Your task to perform on an android device: Open privacy settings Image 0: 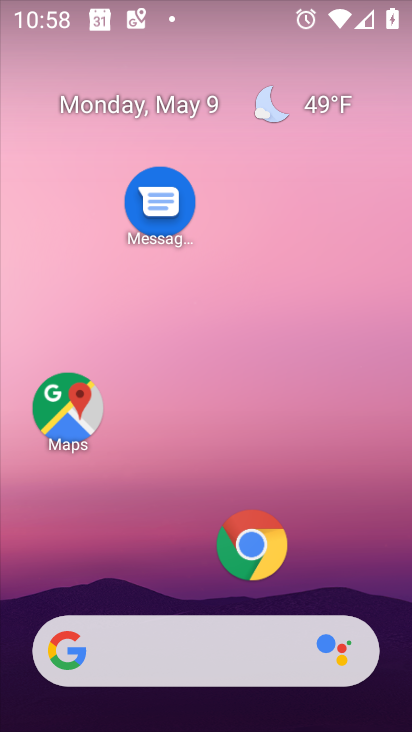
Step 0: click (255, 567)
Your task to perform on an android device: Open privacy settings Image 1: 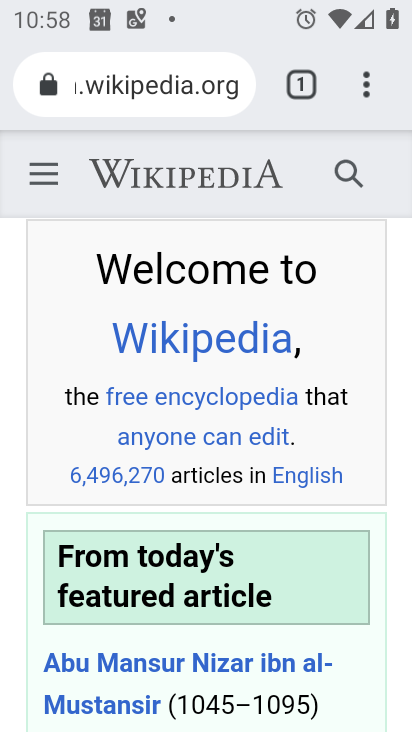
Step 1: click (364, 92)
Your task to perform on an android device: Open privacy settings Image 2: 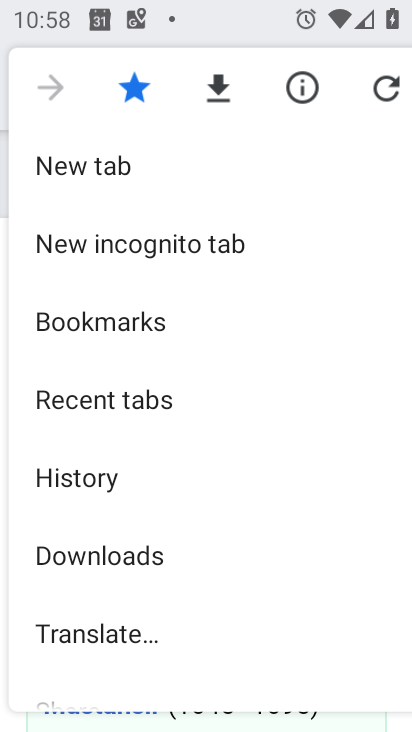
Step 2: drag from (197, 673) to (199, 605)
Your task to perform on an android device: Open privacy settings Image 3: 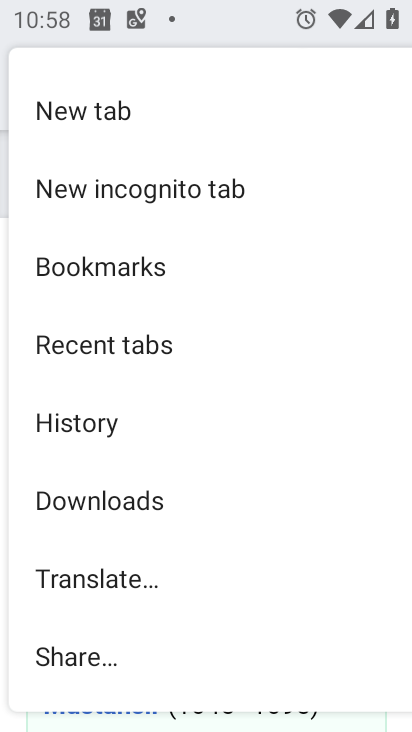
Step 3: drag from (173, 658) to (173, 580)
Your task to perform on an android device: Open privacy settings Image 4: 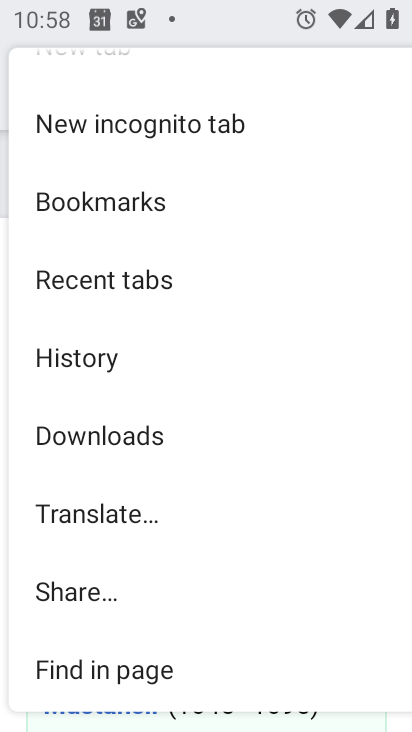
Step 4: drag from (157, 664) to (163, 576)
Your task to perform on an android device: Open privacy settings Image 5: 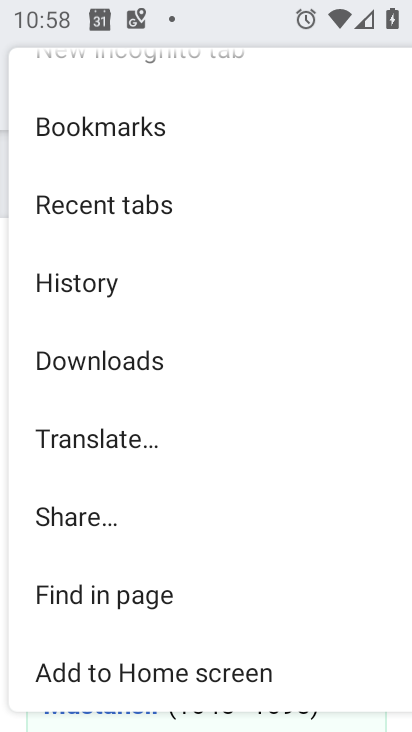
Step 5: drag from (142, 669) to (127, 574)
Your task to perform on an android device: Open privacy settings Image 6: 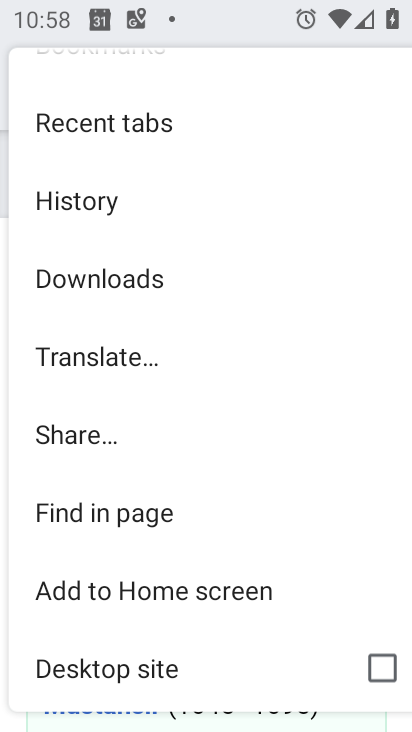
Step 6: drag from (150, 659) to (162, 575)
Your task to perform on an android device: Open privacy settings Image 7: 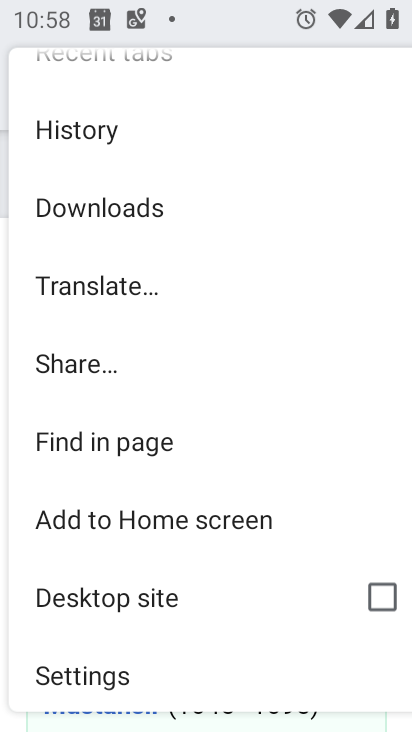
Step 7: click (163, 678)
Your task to perform on an android device: Open privacy settings Image 8: 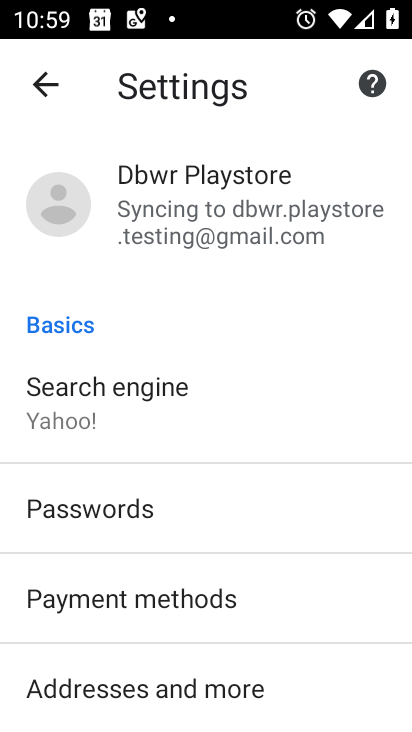
Step 8: drag from (146, 644) to (154, 579)
Your task to perform on an android device: Open privacy settings Image 9: 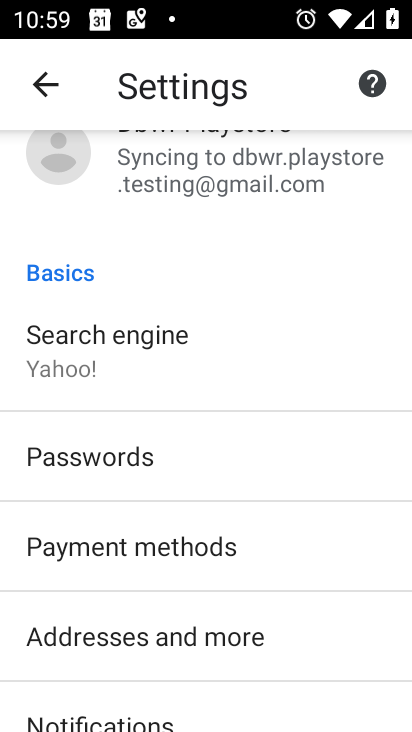
Step 9: drag from (153, 664) to (104, 548)
Your task to perform on an android device: Open privacy settings Image 10: 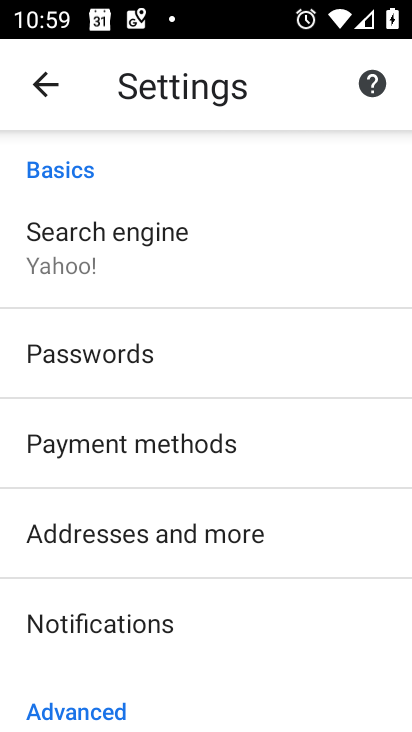
Step 10: drag from (100, 650) to (134, 468)
Your task to perform on an android device: Open privacy settings Image 11: 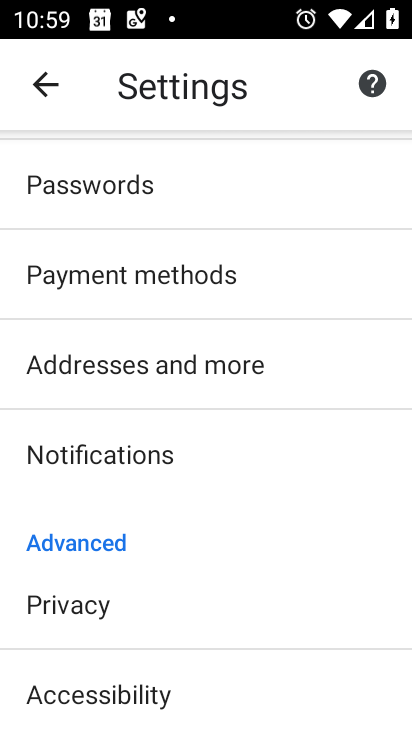
Step 11: click (99, 615)
Your task to perform on an android device: Open privacy settings Image 12: 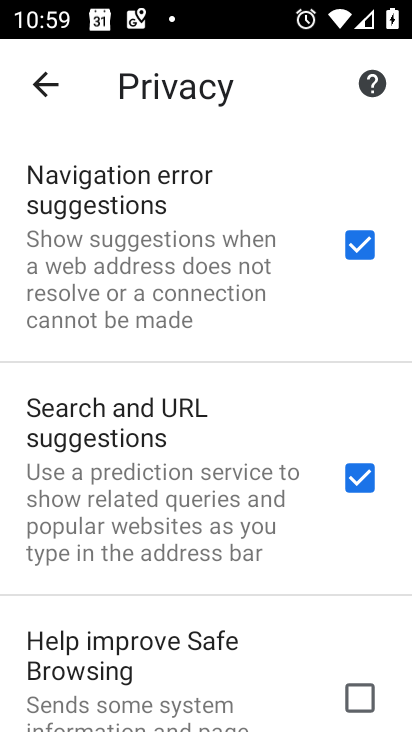
Step 12: task complete